Your task to perform on an android device: Search for the best value 4K TV on Best Buy Image 0: 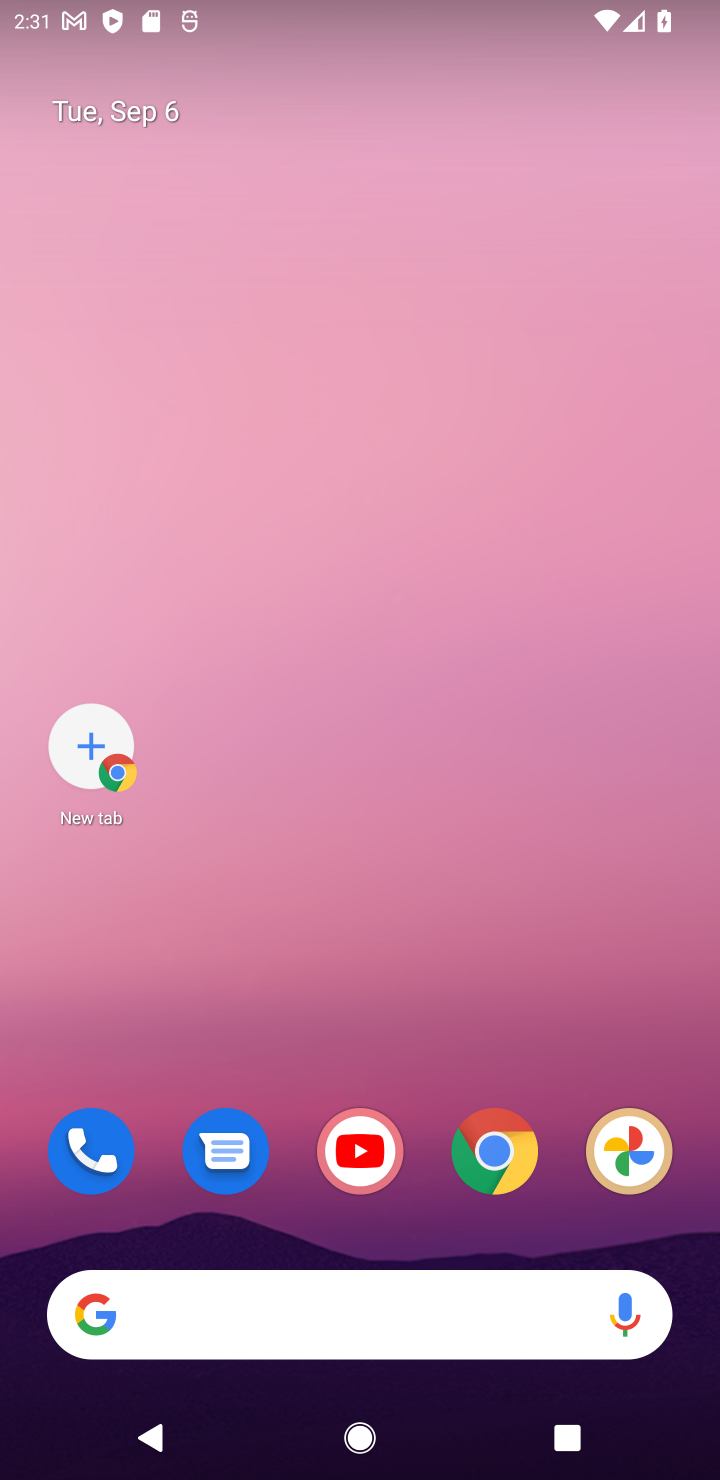
Step 0: click (512, 1159)
Your task to perform on an android device: Search for the best value 4K TV on Best Buy Image 1: 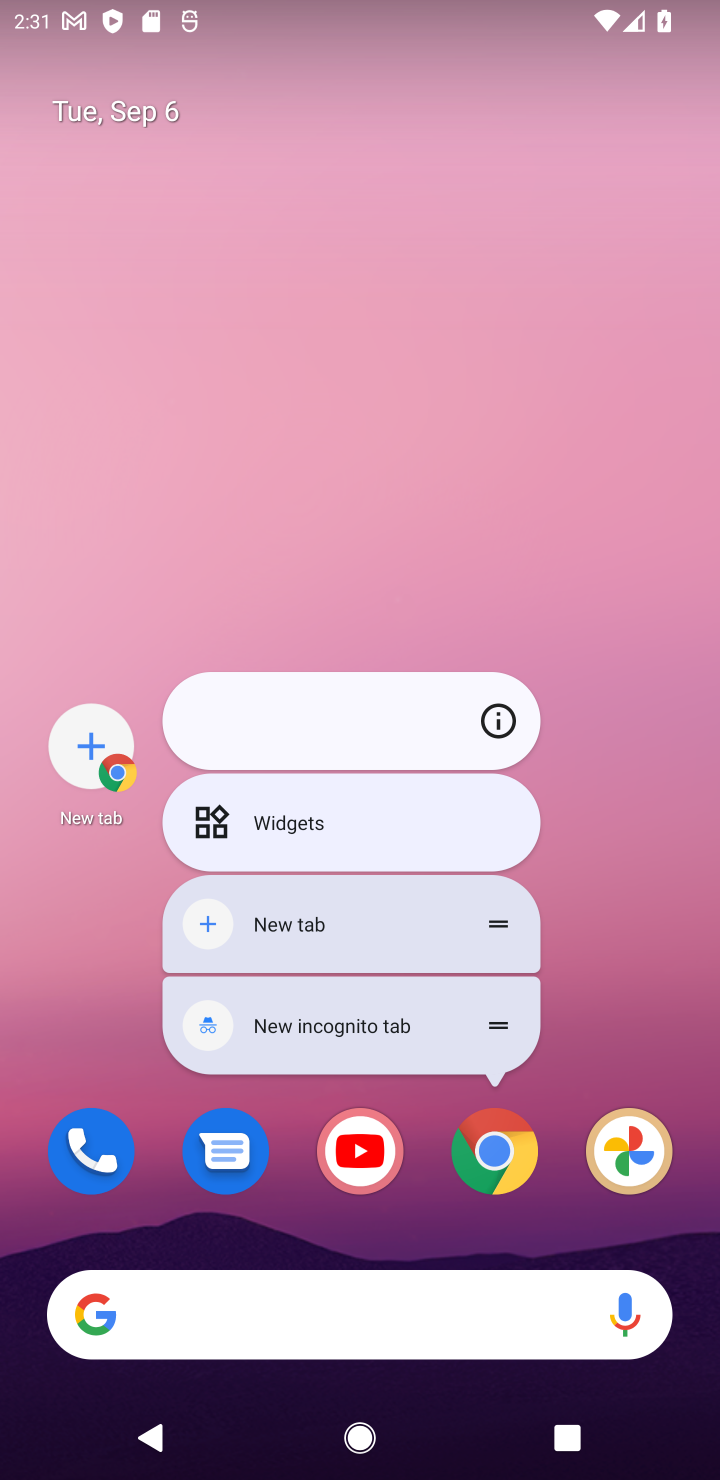
Step 1: click (510, 1153)
Your task to perform on an android device: Search for the best value 4K TV on Best Buy Image 2: 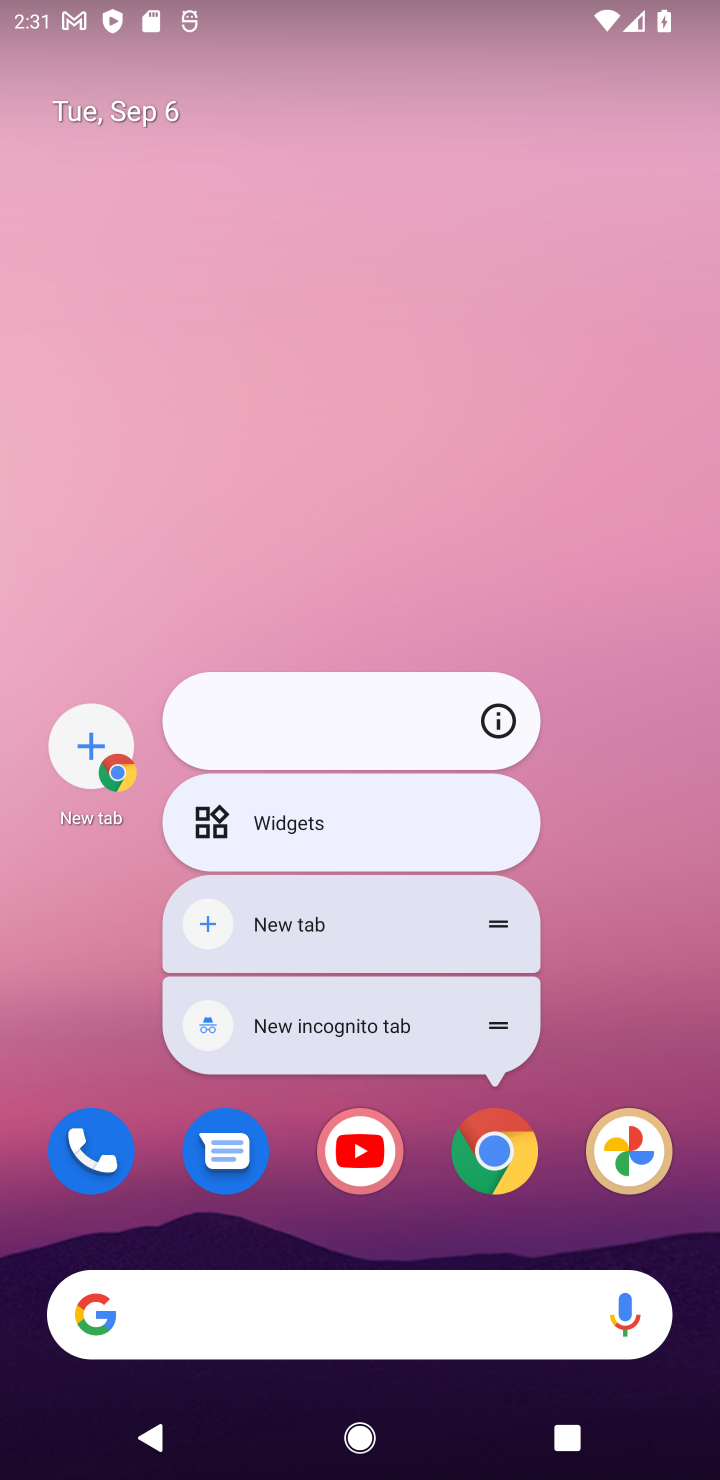
Step 2: click (483, 1166)
Your task to perform on an android device: Search for the best value 4K TV on Best Buy Image 3: 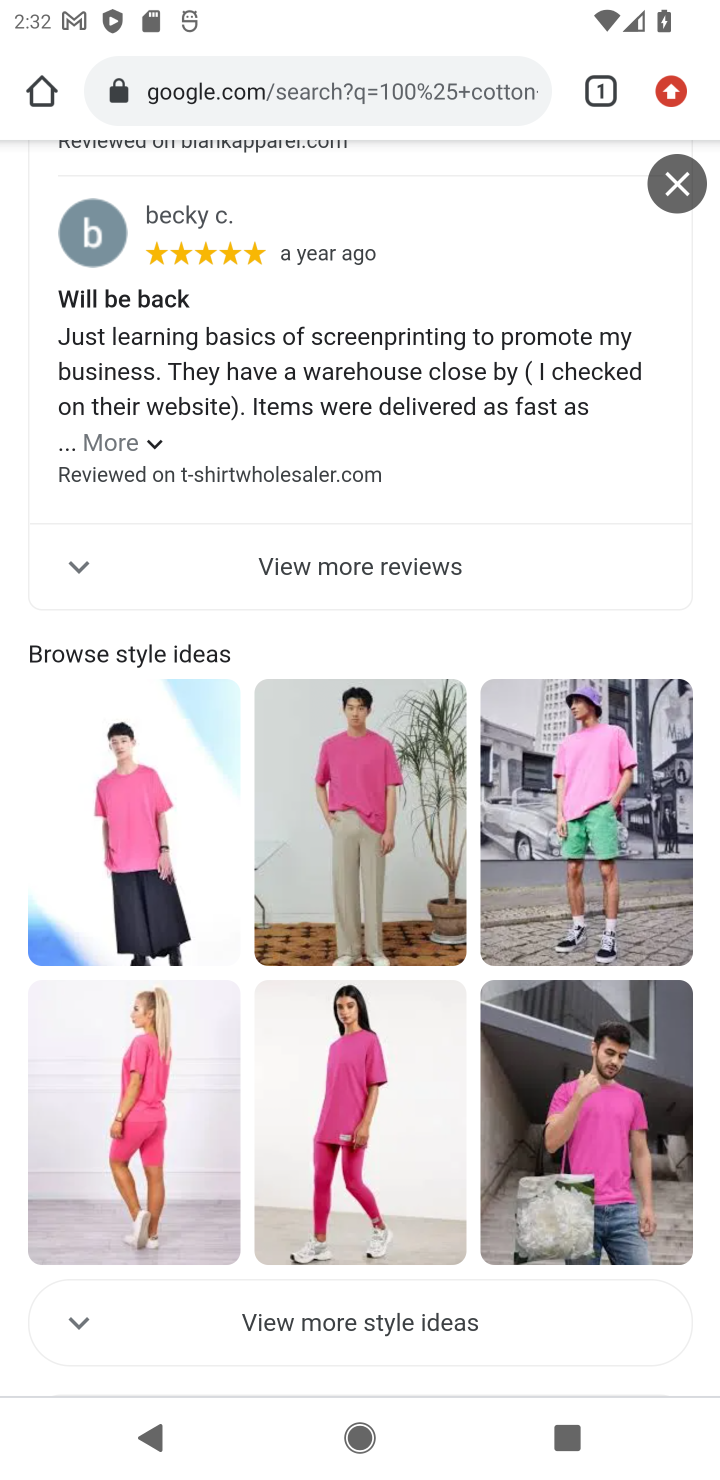
Step 3: click (262, 93)
Your task to perform on an android device: Search for the best value 4K TV on Best Buy Image 4: 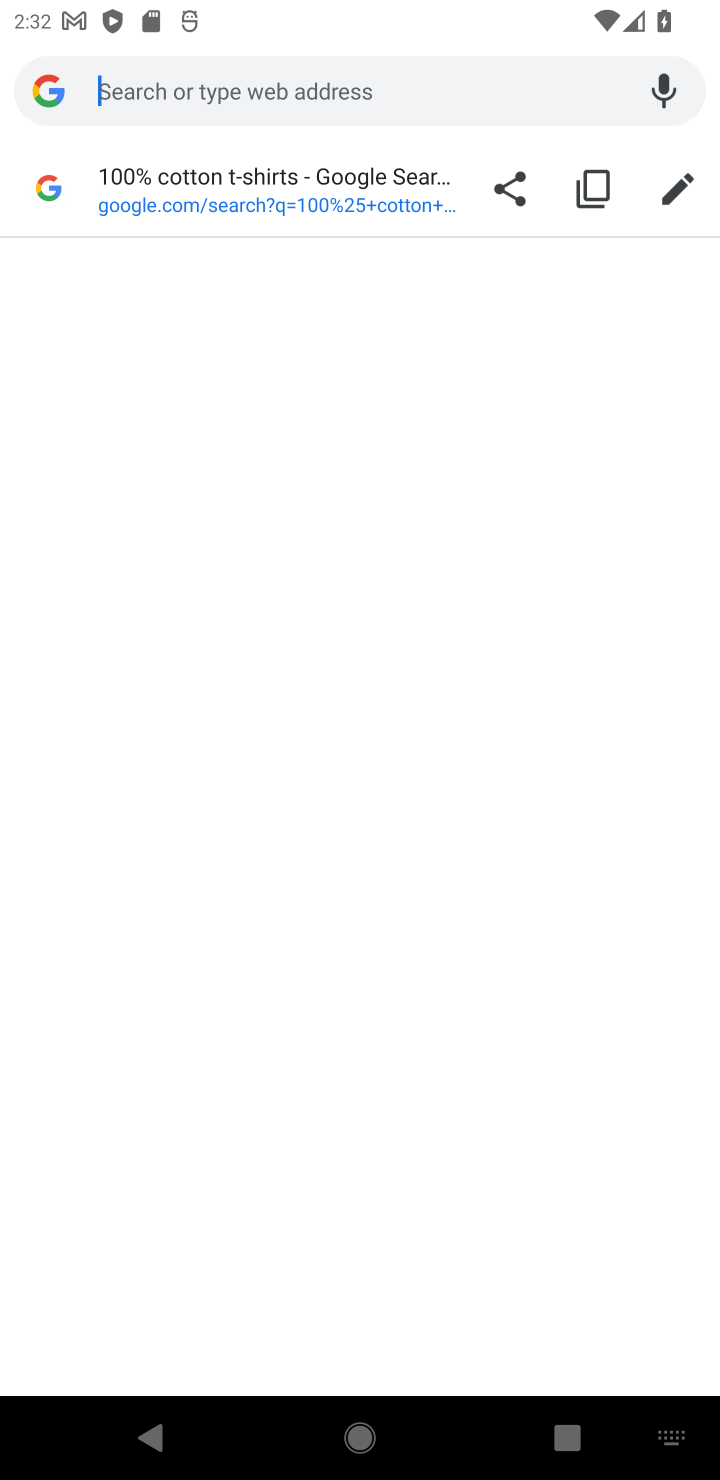
Step 4: type "best buy"
Your task to perform on an android device: Search for the best value 4K TV on Best Buy Image 5: 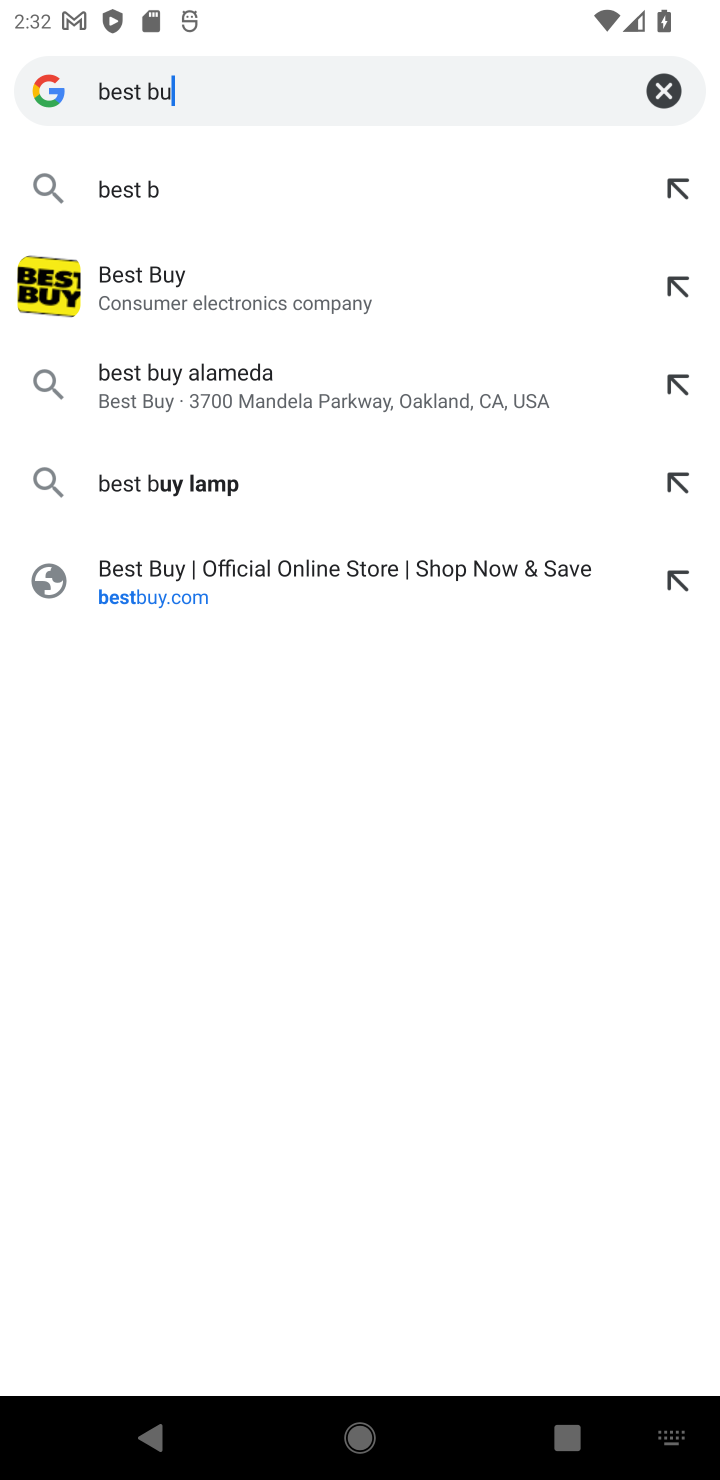
Step 5: type ""
Your task to perform on an android device: Search for the best value 4K TV on Best Buy Image 6: 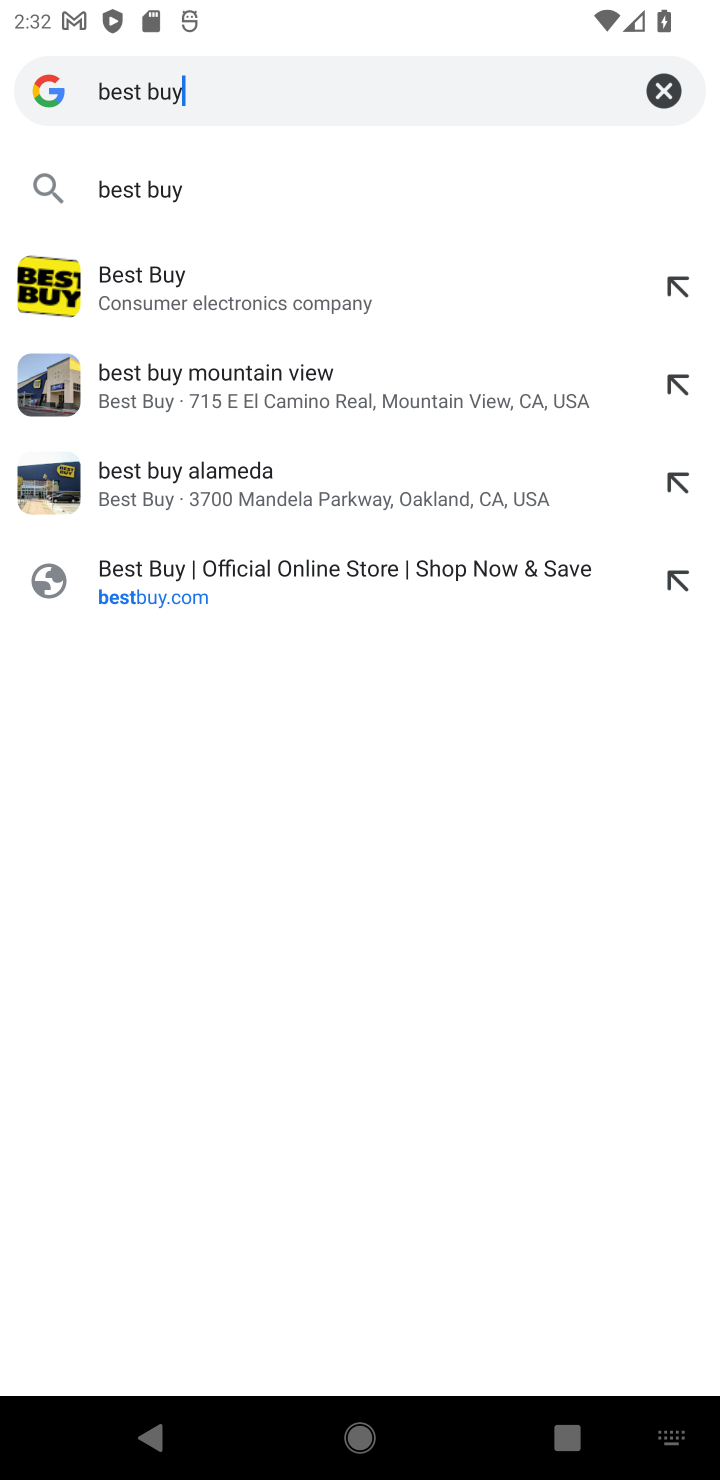
Step 6: click (144, 289)
Your task to perform on an android device: Search for the best value 4K TV on Best Buy Image 7: 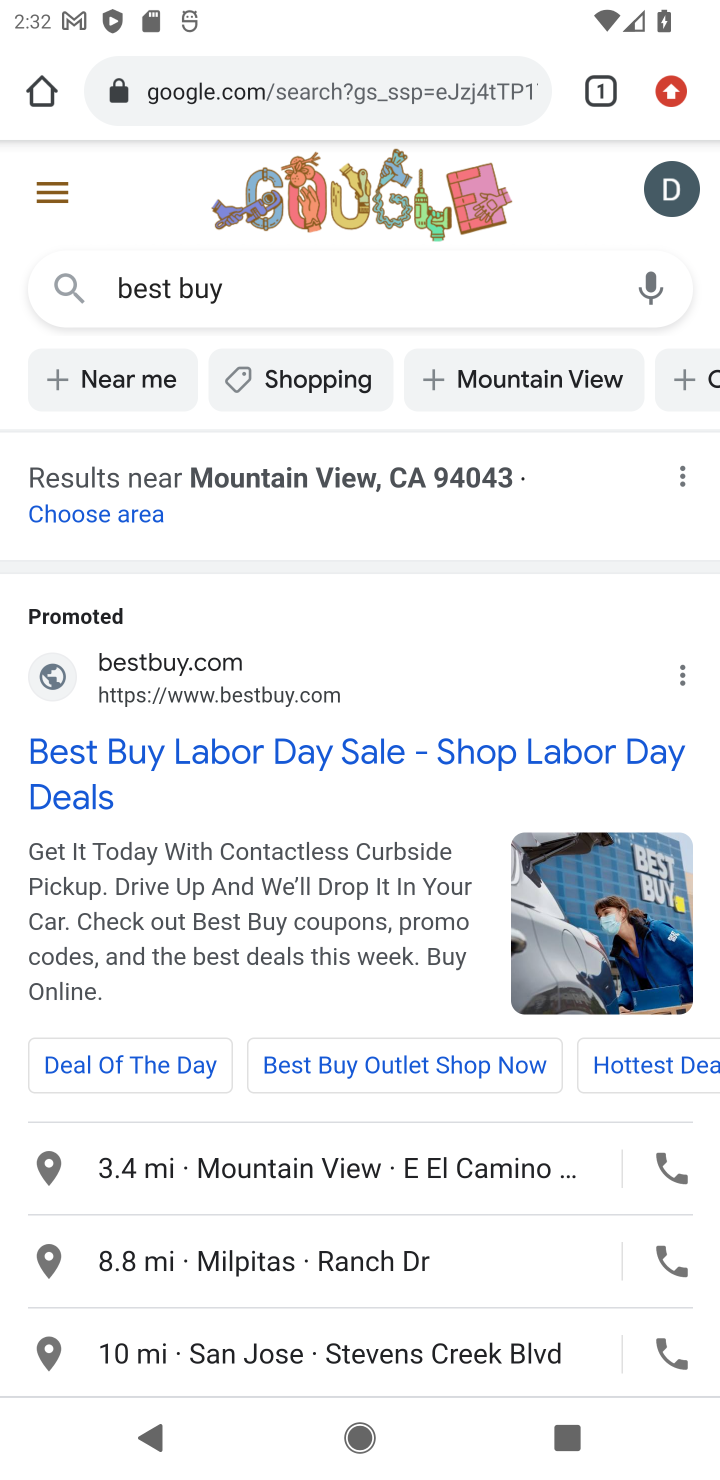
Step 7: drag from (370, 888) to (455, 337)
Your task to perform on an android device: Search for the best value 4K TV on Best Buy Image 8: 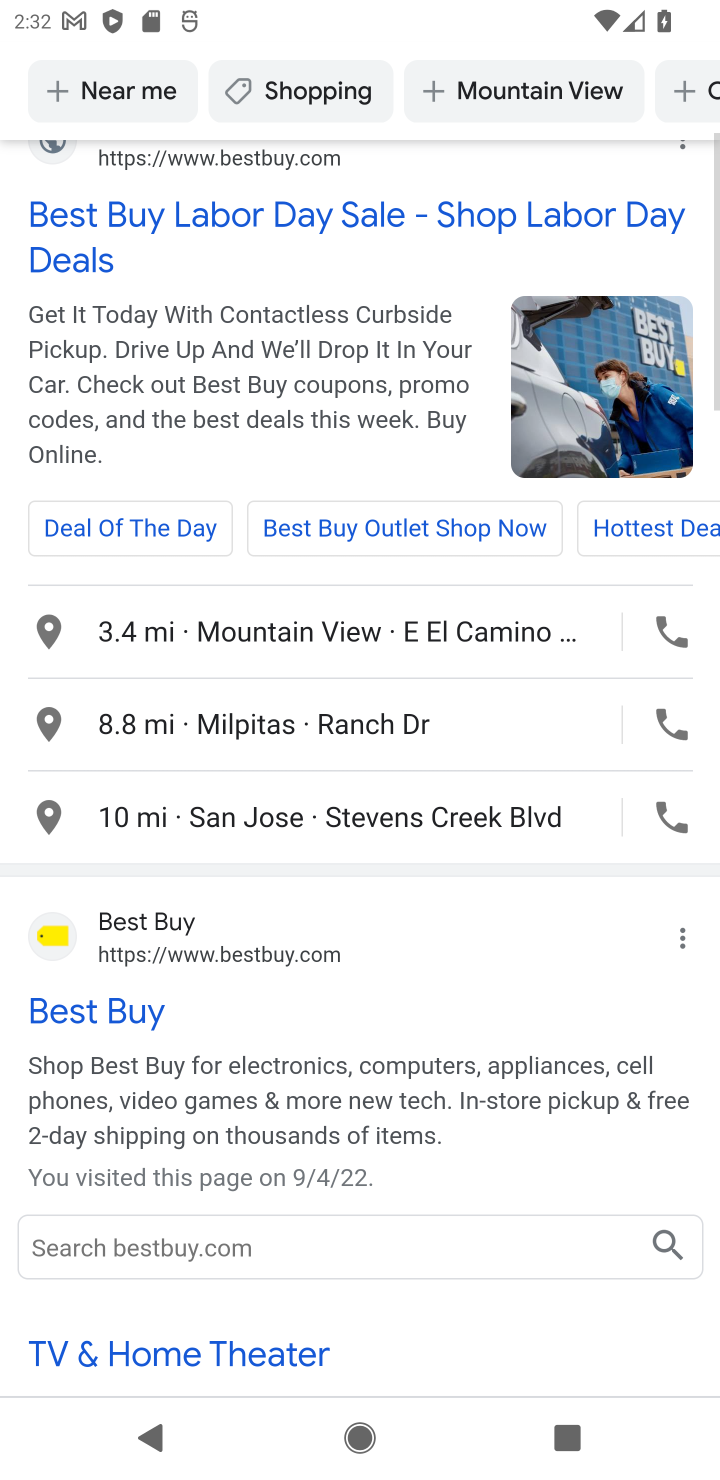
Step 8: click (112, 1152)
Your task to perform on an android device: Search for the best value 4K TV on Best Buy Image 9: 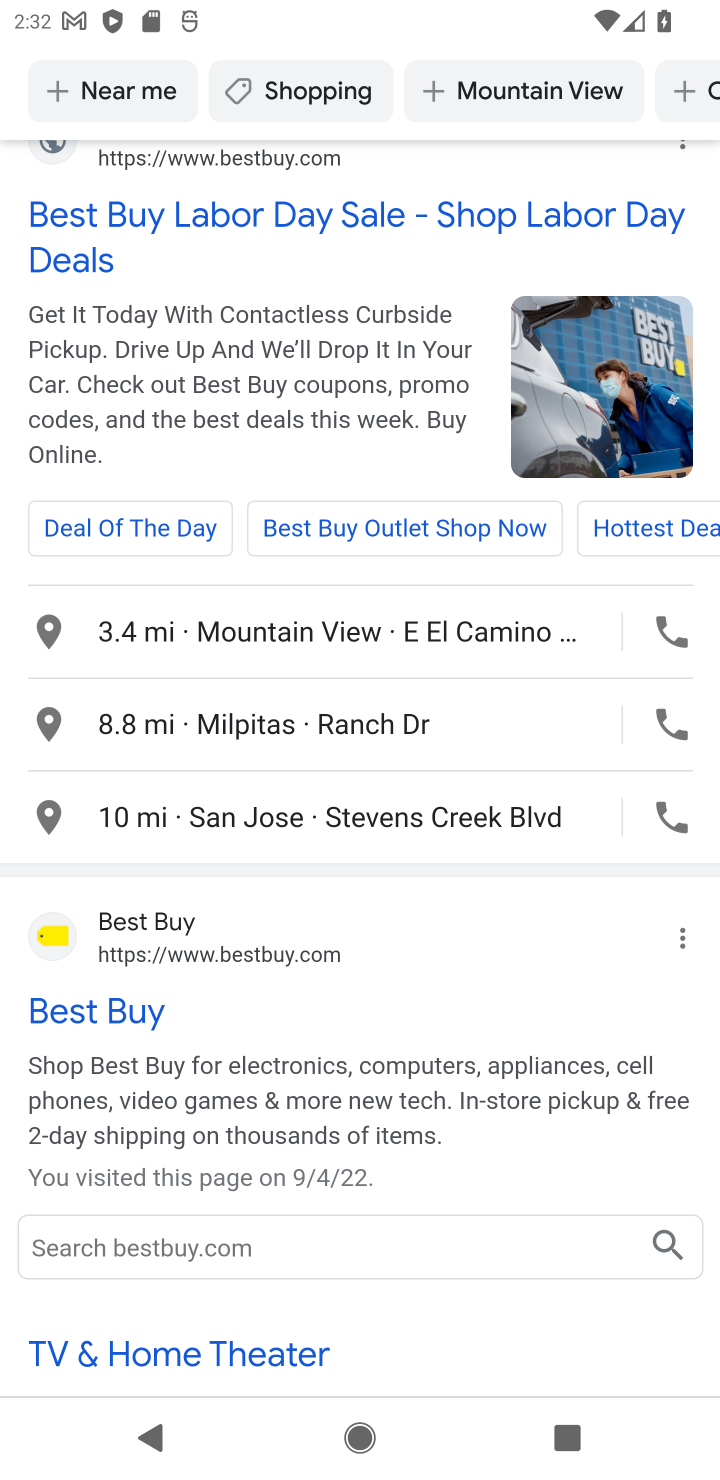
Step 9: click (78, 1005)
Your task to perform on an android device: Search for the best value 4K TV on Best Buy Image 10: 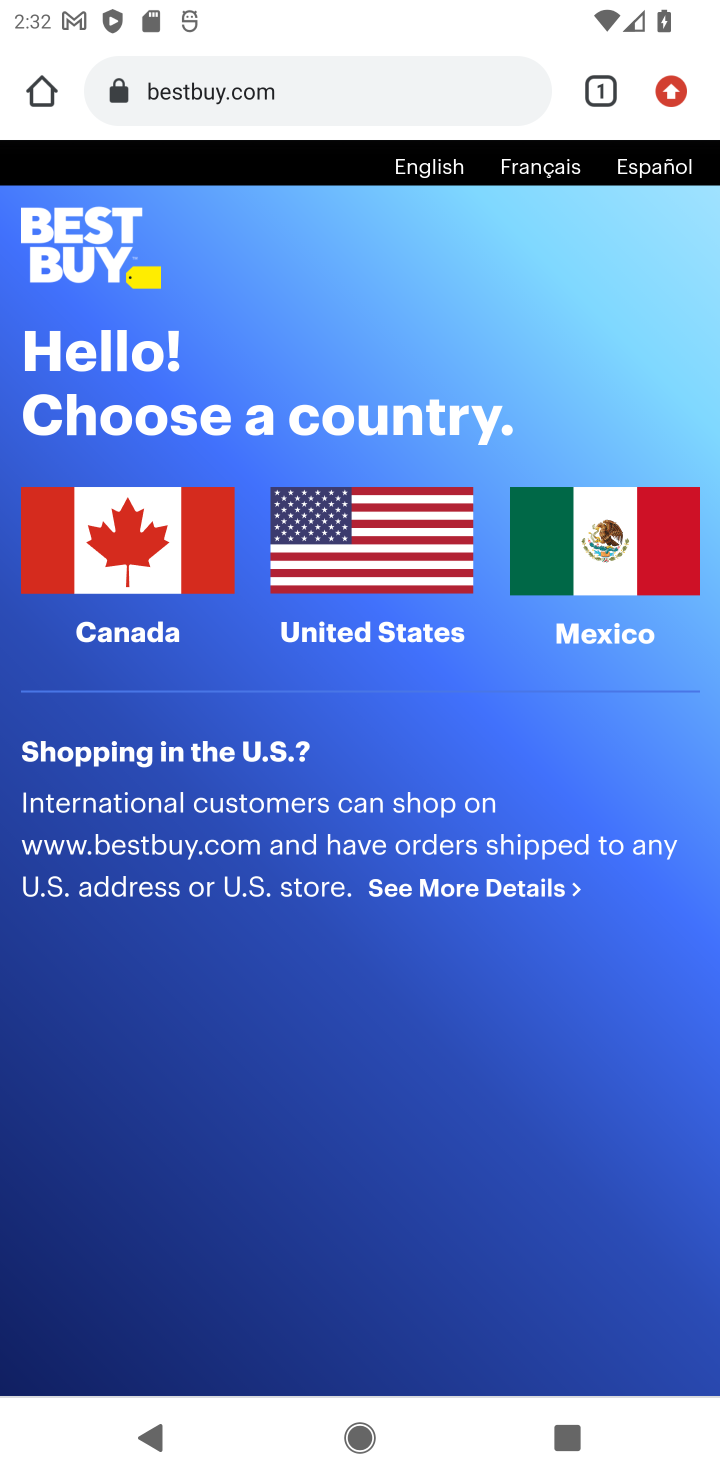
Step 10: click (329, 556)
Your task to perform on an android device: Search for the best value 4K TV on Best Buy Image 11: 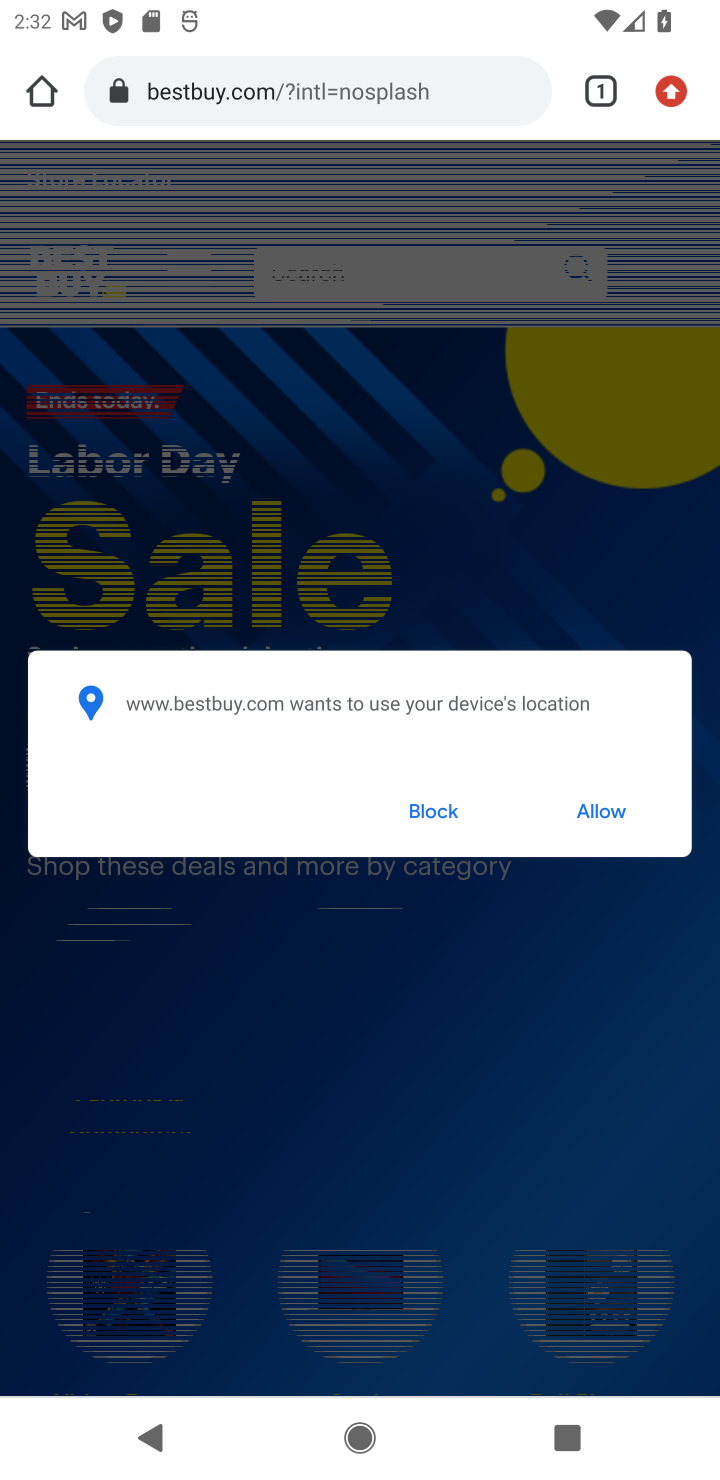
Step 11: click (327, 272)
Your task to perform on an android device: Search for the best value 4K TV on Best Buy Image 12: 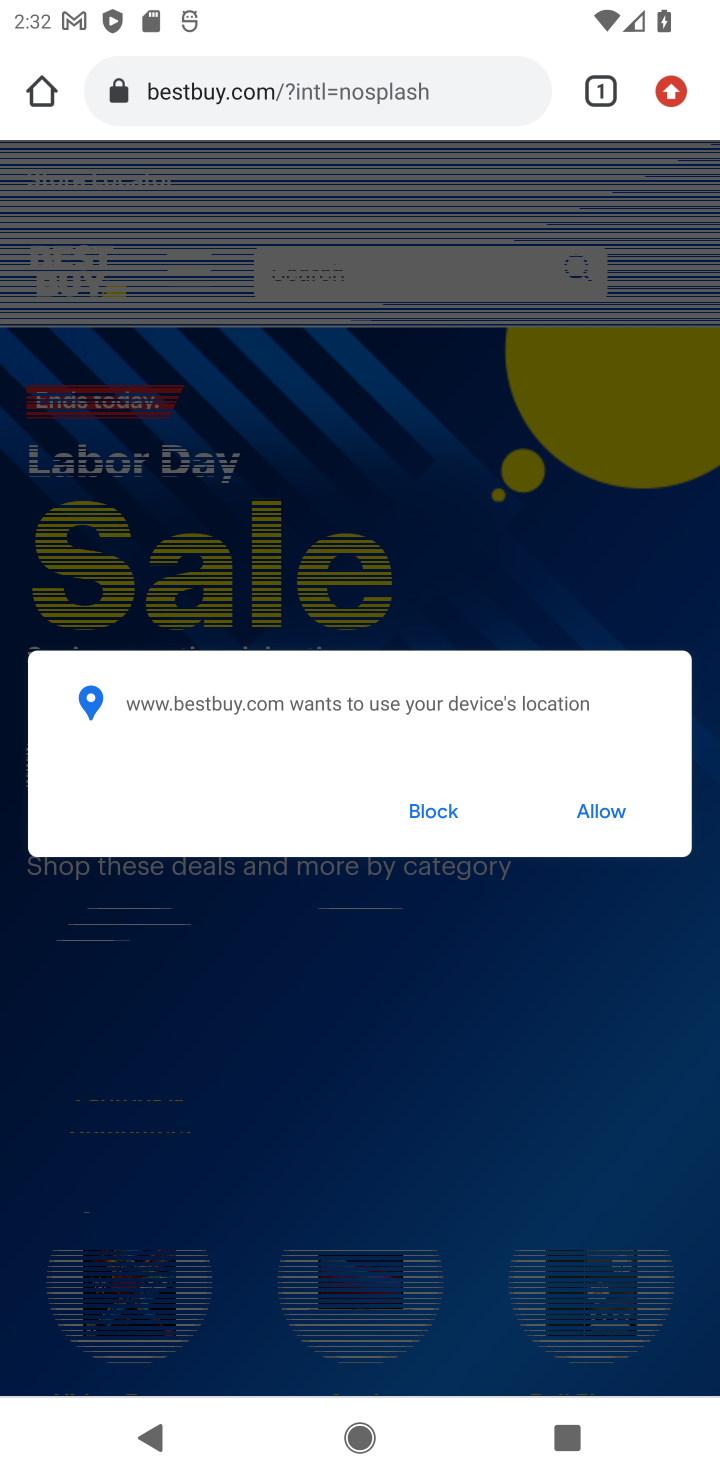
Step 12: click (600, 811)
Your task to perform on an android device: Search for the best value 4K TV on Best Buy Image 13: 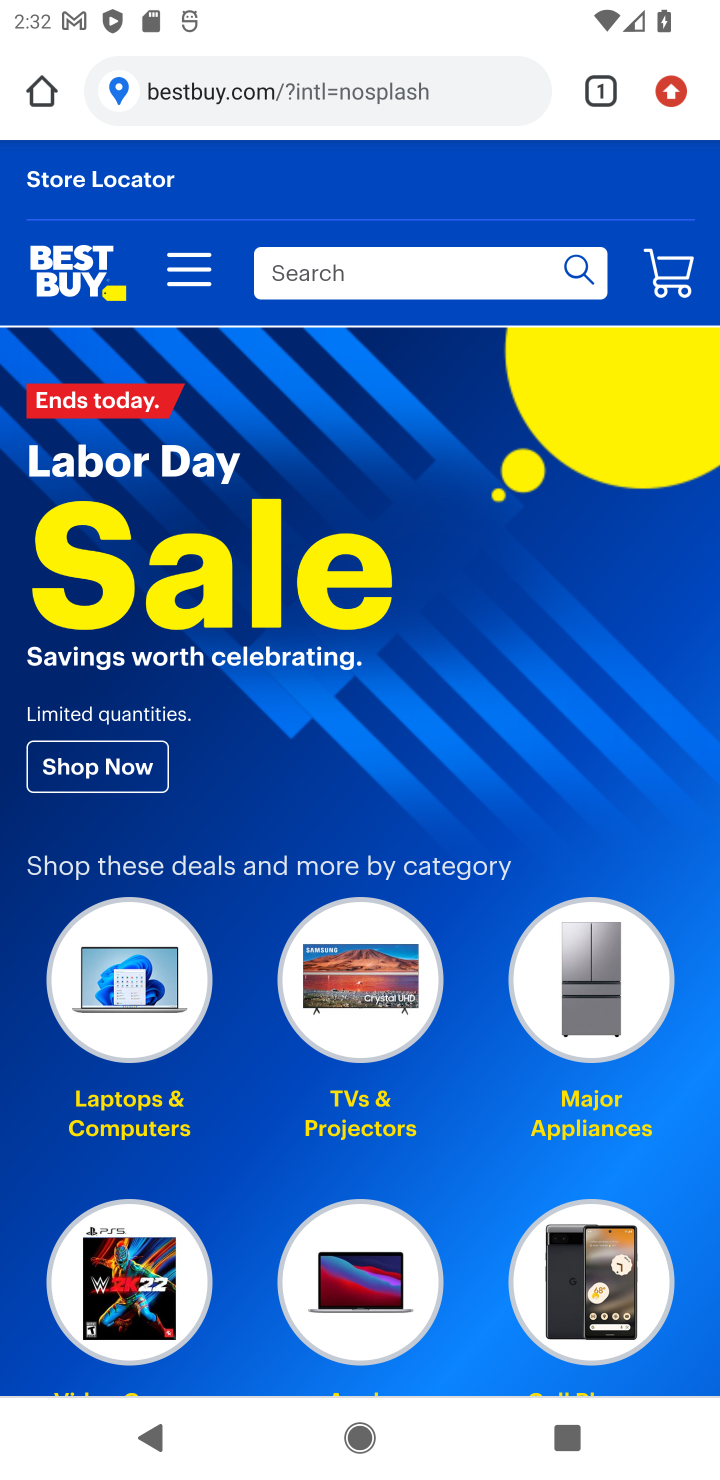
Step 13: click (385, 276)
Your task to perform on an android device: Search for the best value 4K TV on Best Buy Image 14: 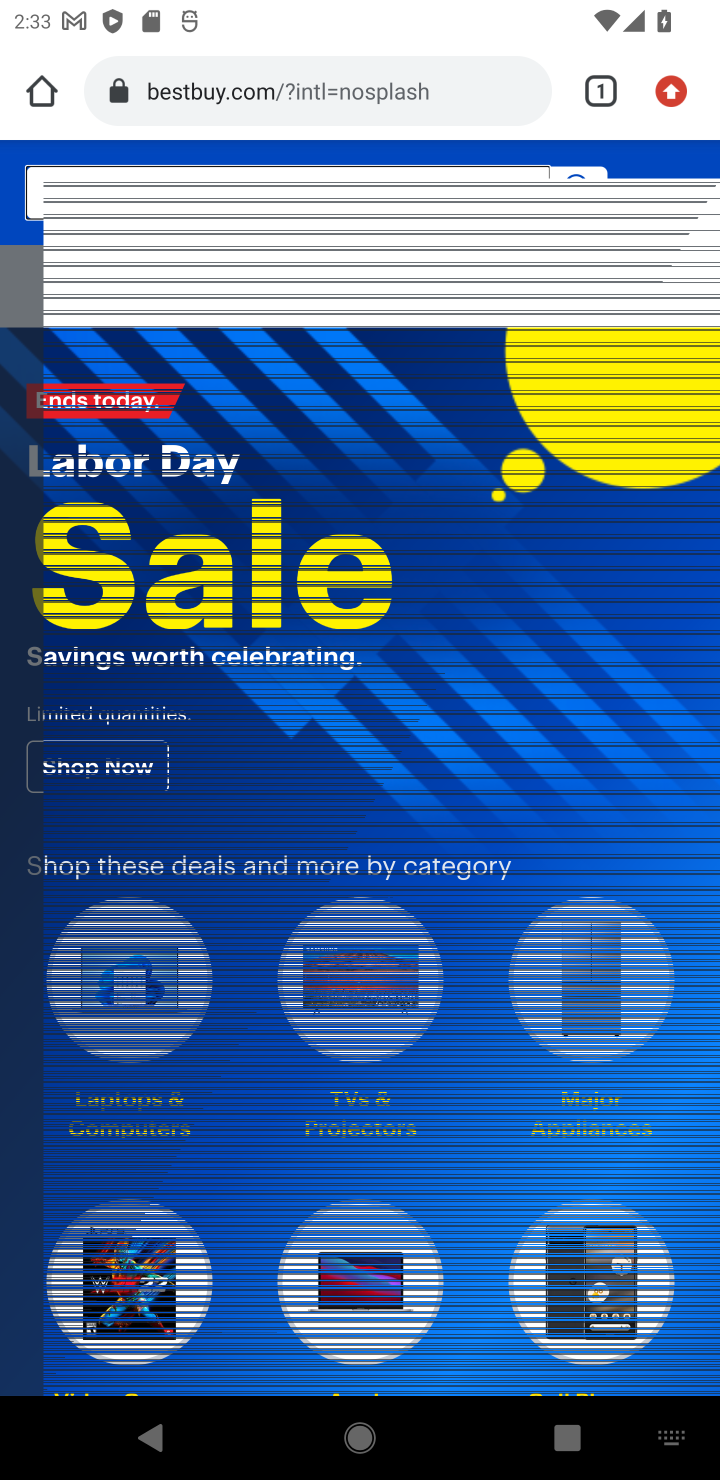
Step 14: type "4k tv"
Your task to perform on an android device: Search for the best value 4K TV on Best Buy Image 15: 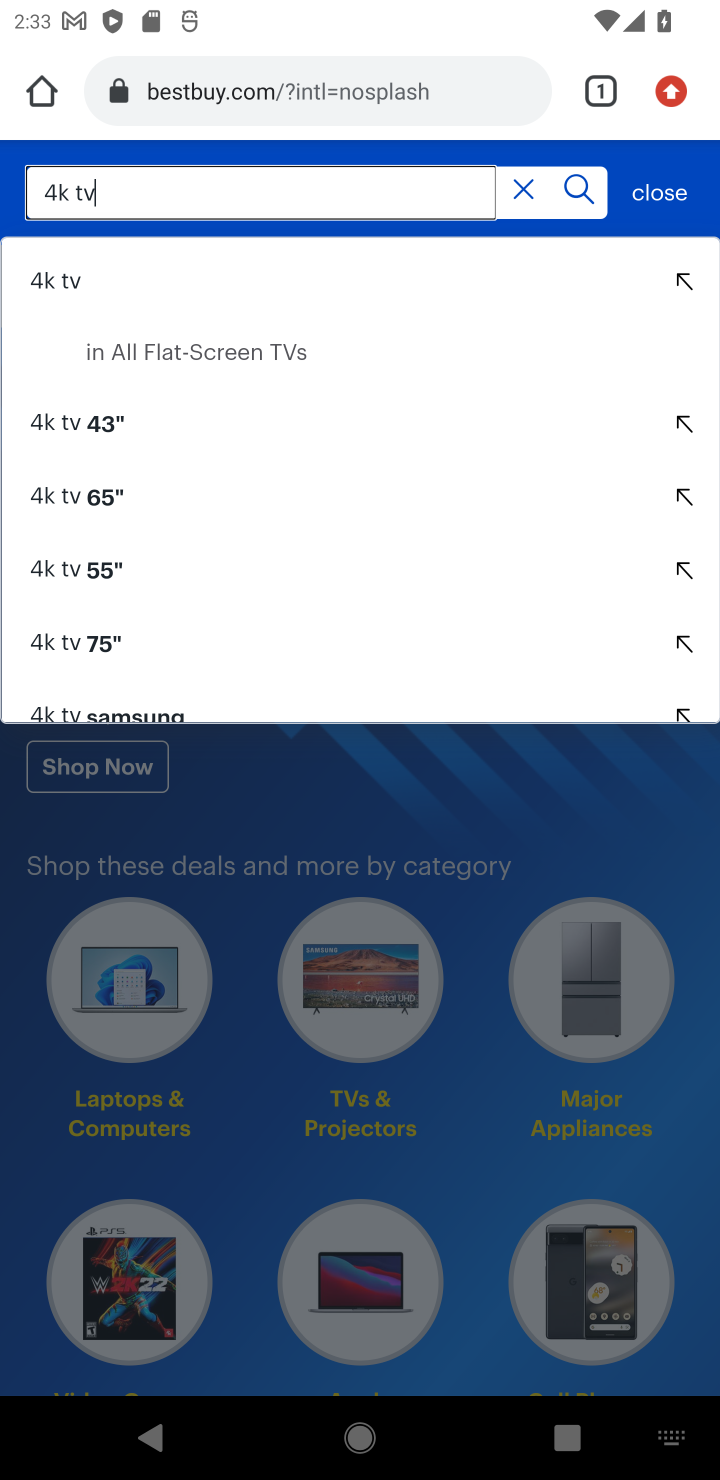
Step 15: click (62, 290)
Your task to perform on an android device: Search for the best value 4K TV on Best Buy Image 16: 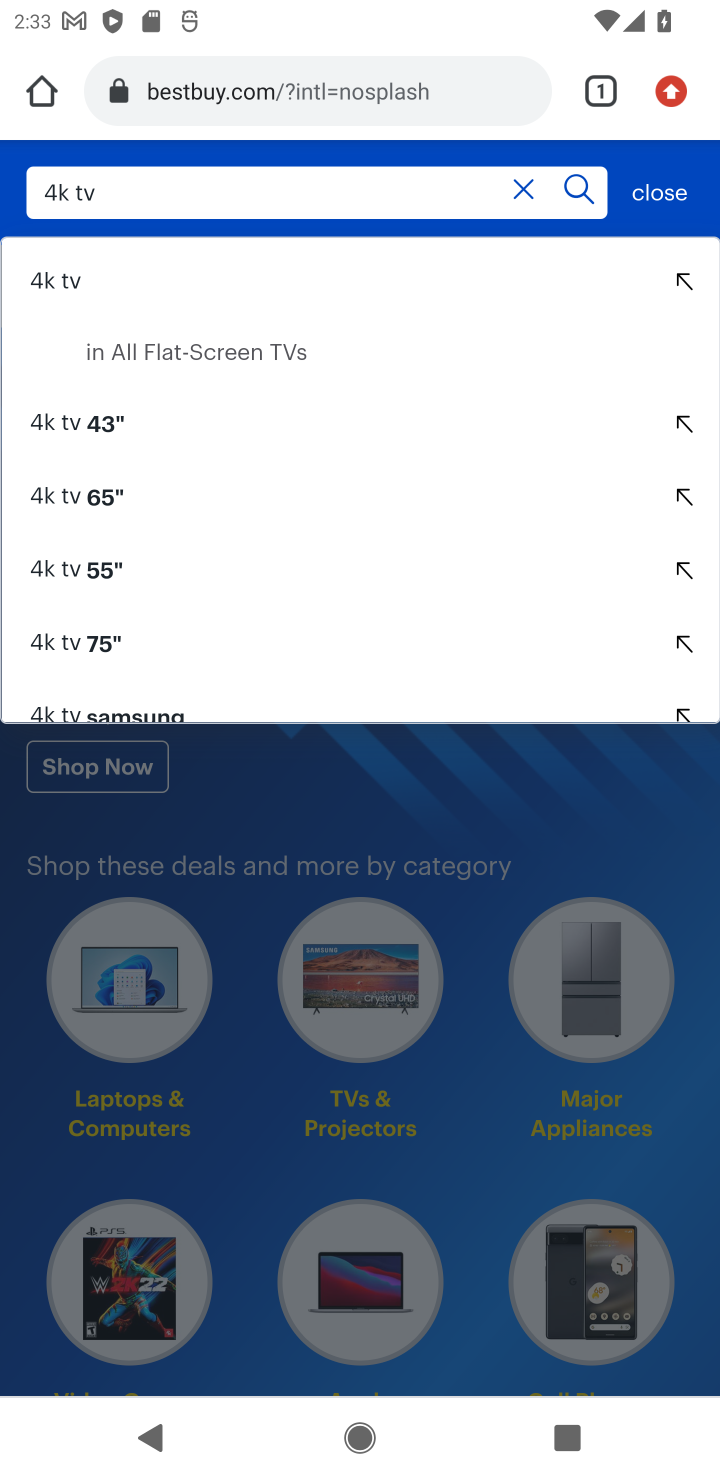
Step 16: click (60, 286)
Your task to perform on an android device: Search for the best value 4K TV on Best Buy Image 17: 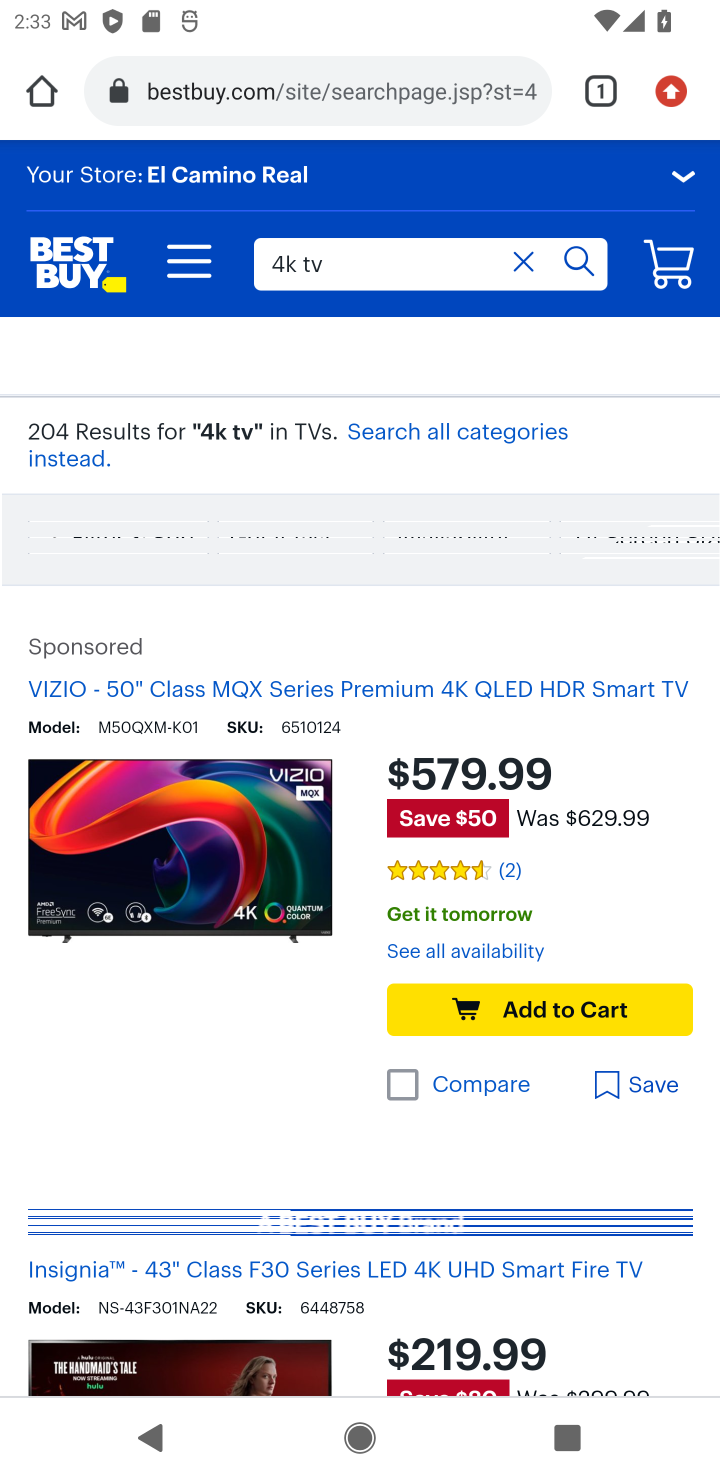
Step 17: drag from (188, 1005) to (282, 422)
Your task to perform on an android device: Search for the best value 4K TV on Best Buy Image 18: 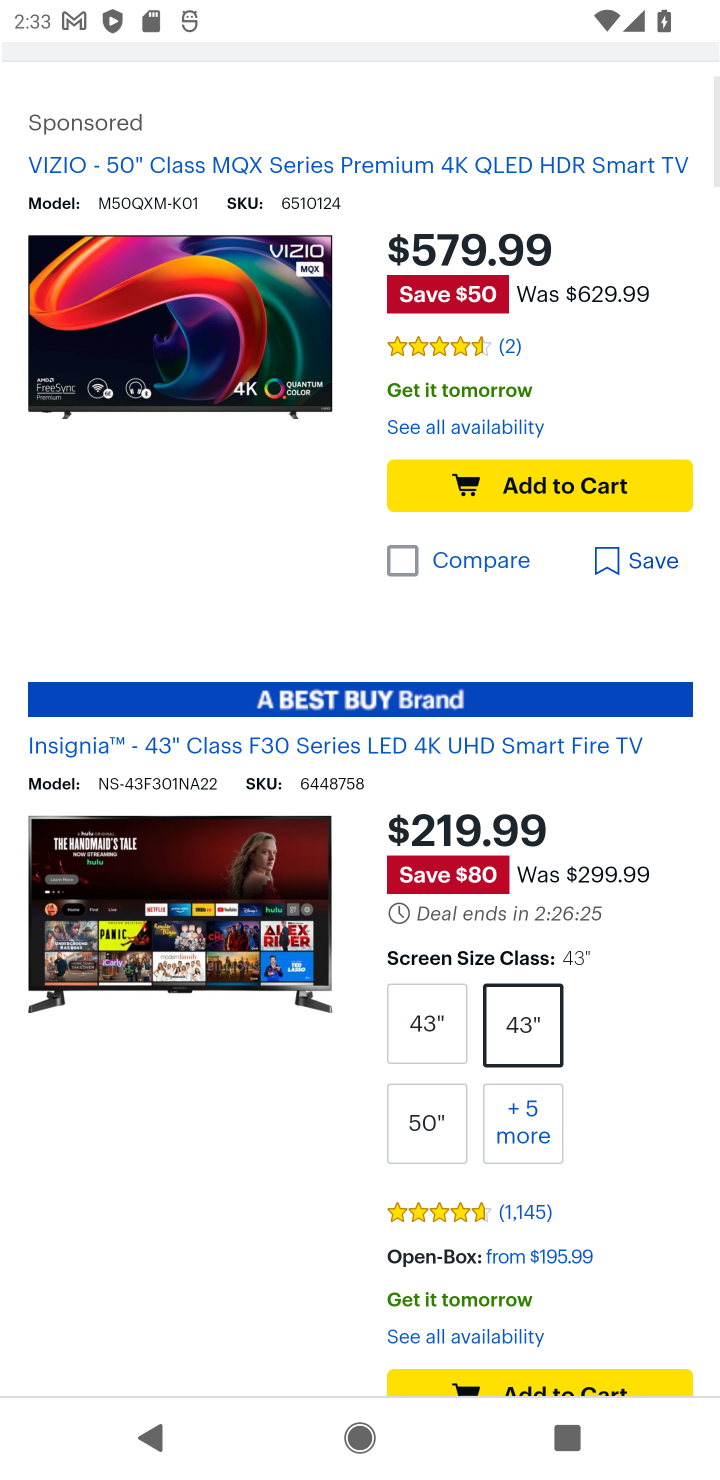
Step 18: drag from (433, 892) to (511, 304)
Your task to perform on an android device: Search for the best value 4K TV on Best Buy Image 19: 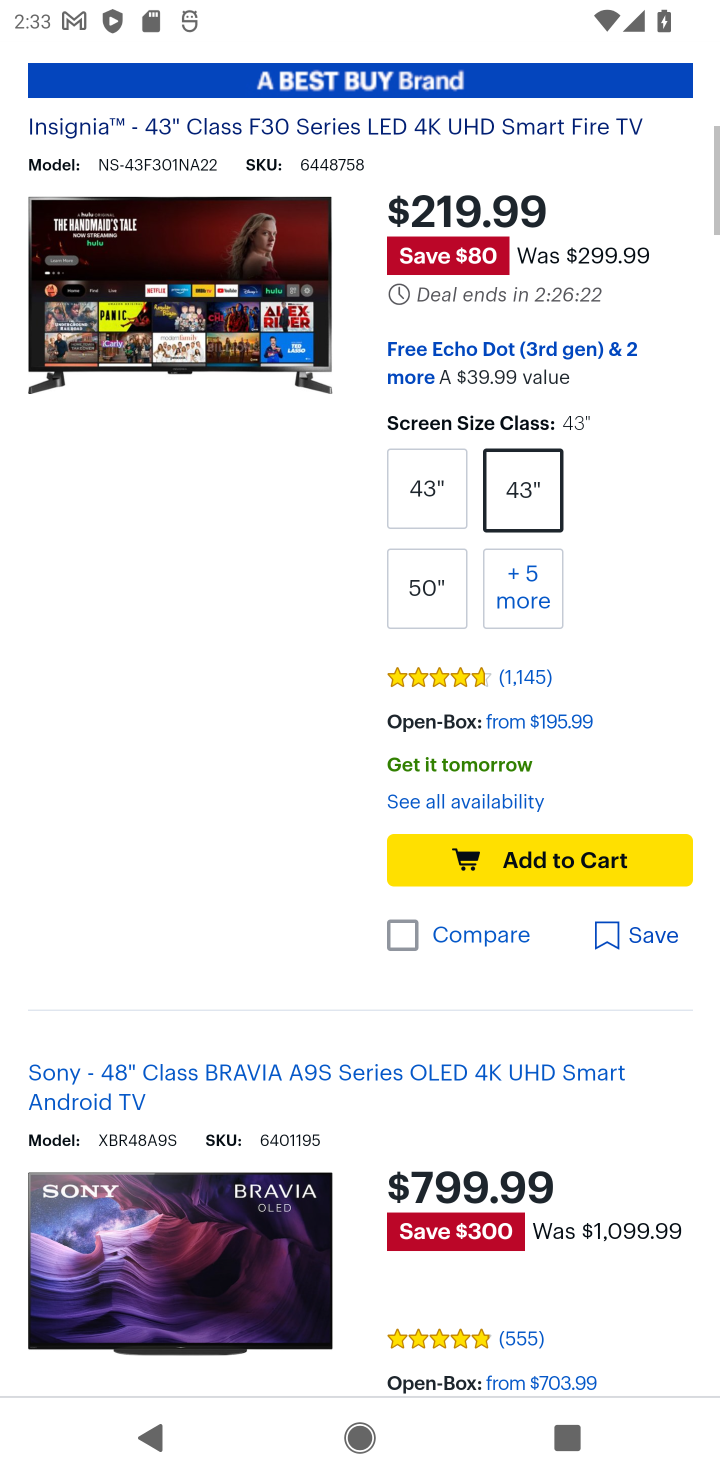
Step 19: drag from (400, 569) to (421, 415)
Your task to perform on an android device: Search for the best value 4K TV on Best Buy Image 20: 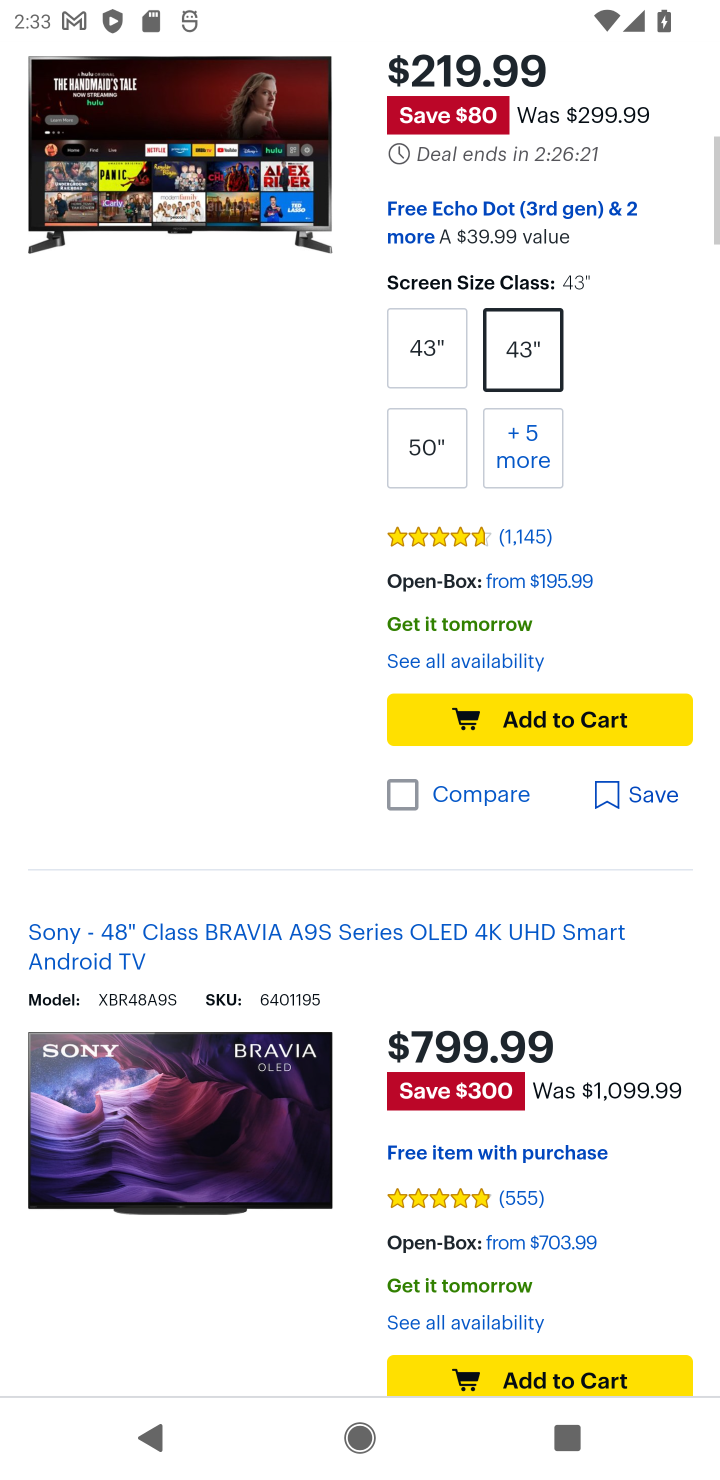
Step 20: drag from (204, 1174) to (352, 495)
Your task to perform on an android device: Search for the best value 4K TV on Best Buy Image 21: 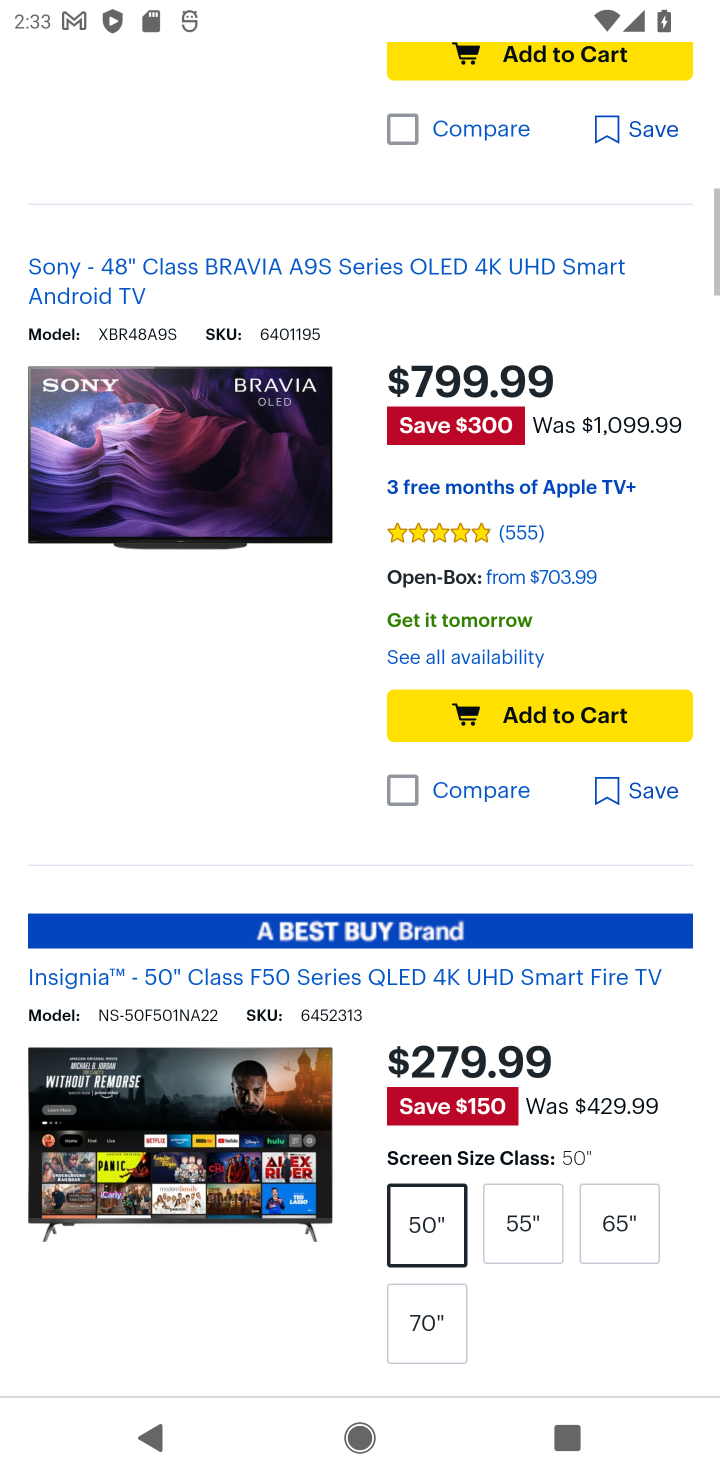
Step 21: click (324, 611)
Your task to perform on an android device: Search for the best value 4K TV on Best Buy Image 22: 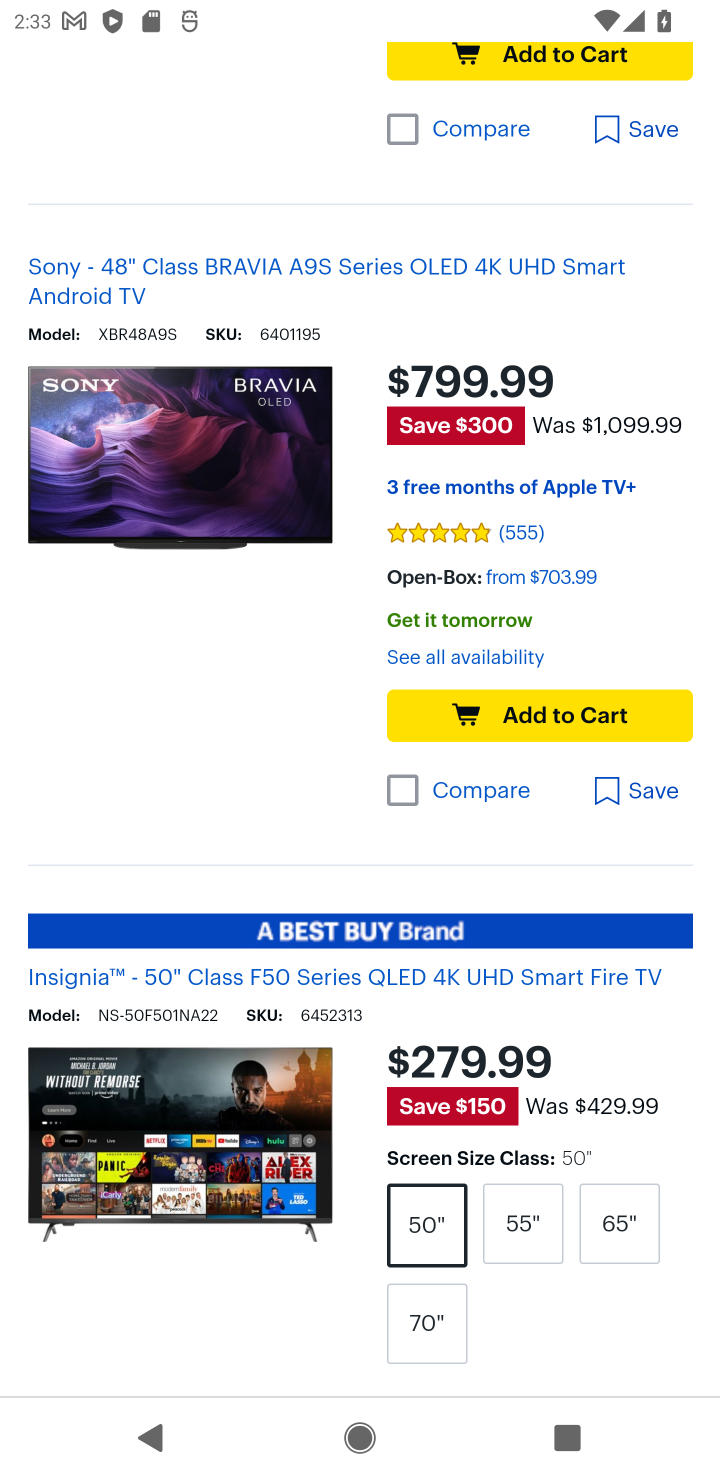
Step 22: drag from (210, 868) to (261, 627)
Your task to perform on an android device: Search for the best value 4K TV on Best Buy Image 23: 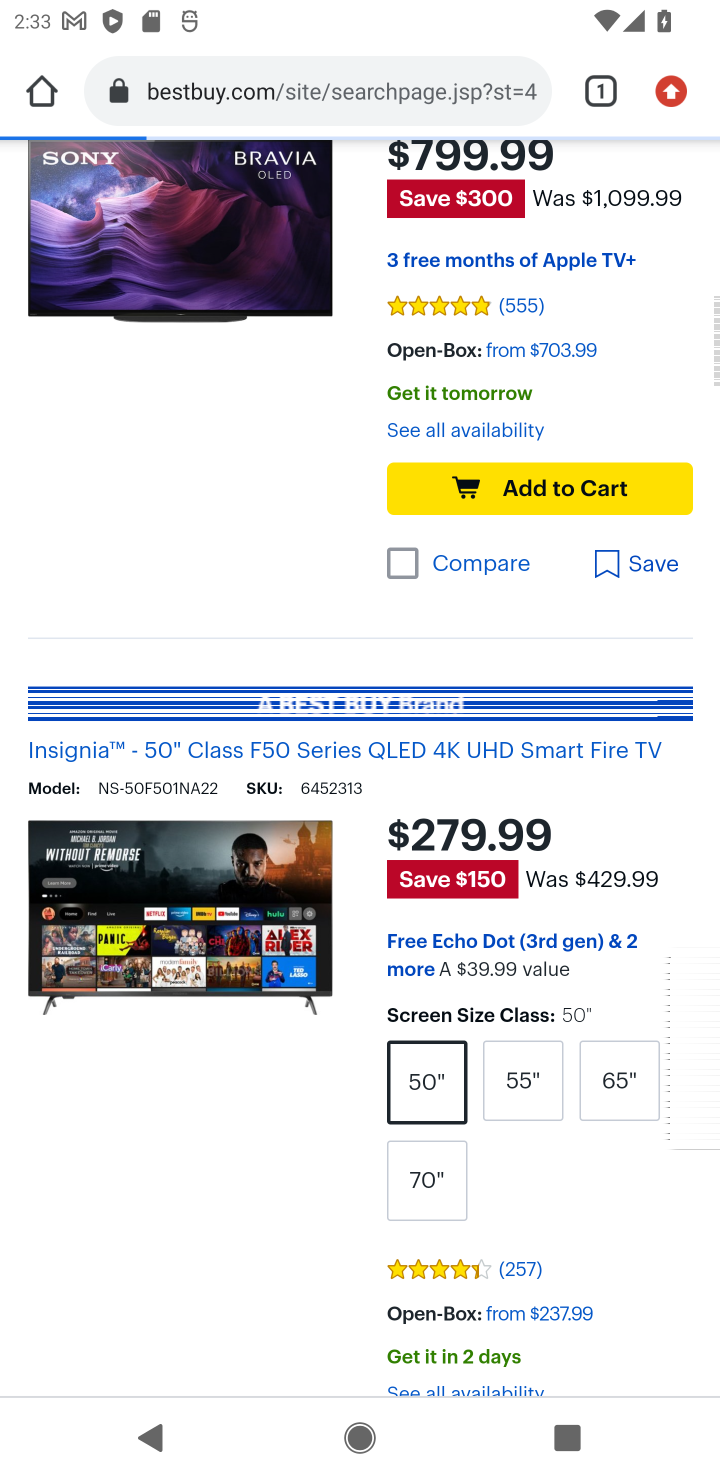
Step 23: click (141, 863)
Your task to perform on an android device: Search for the best value 4K TV on Best Buy Image 24: 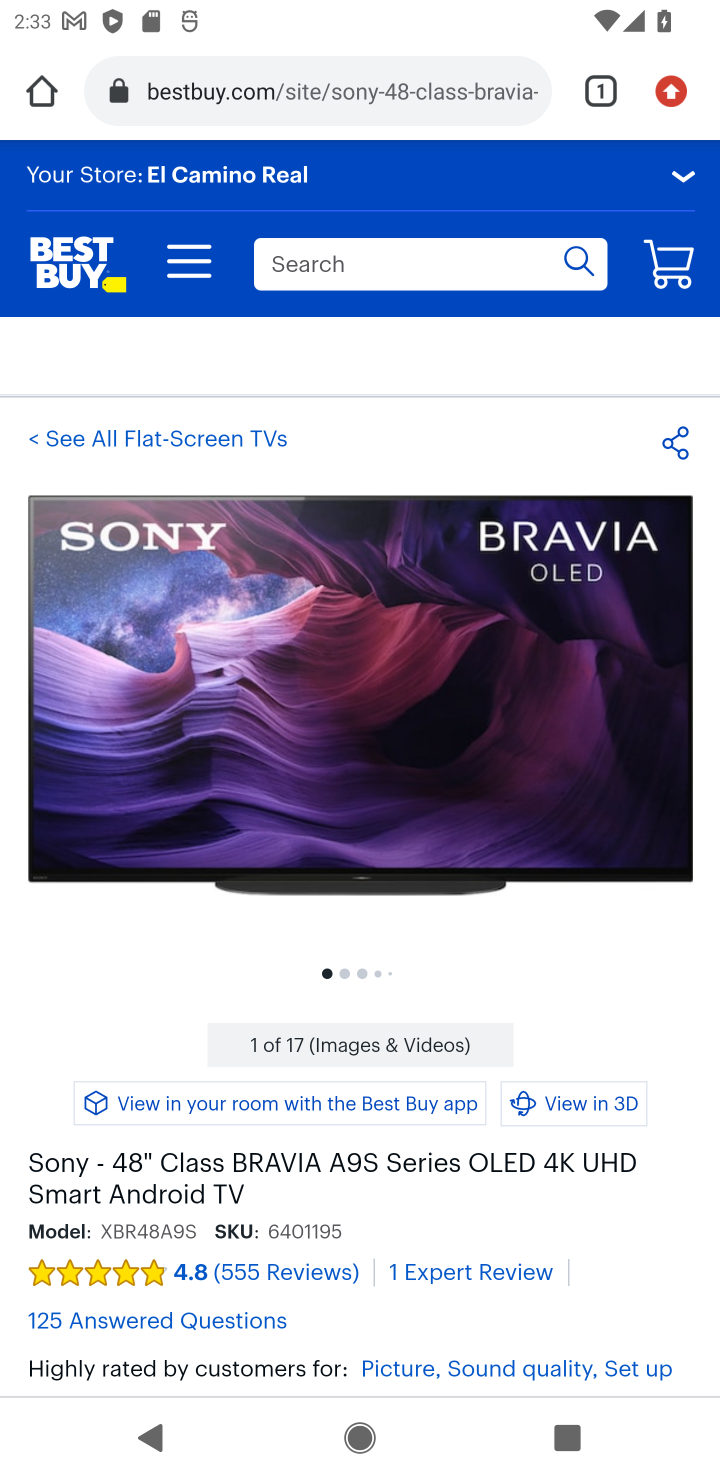
Step 24: click (653, 537)
Your task to perform on an android device: Search for the best value 4K TV on Best Buy Image 25: 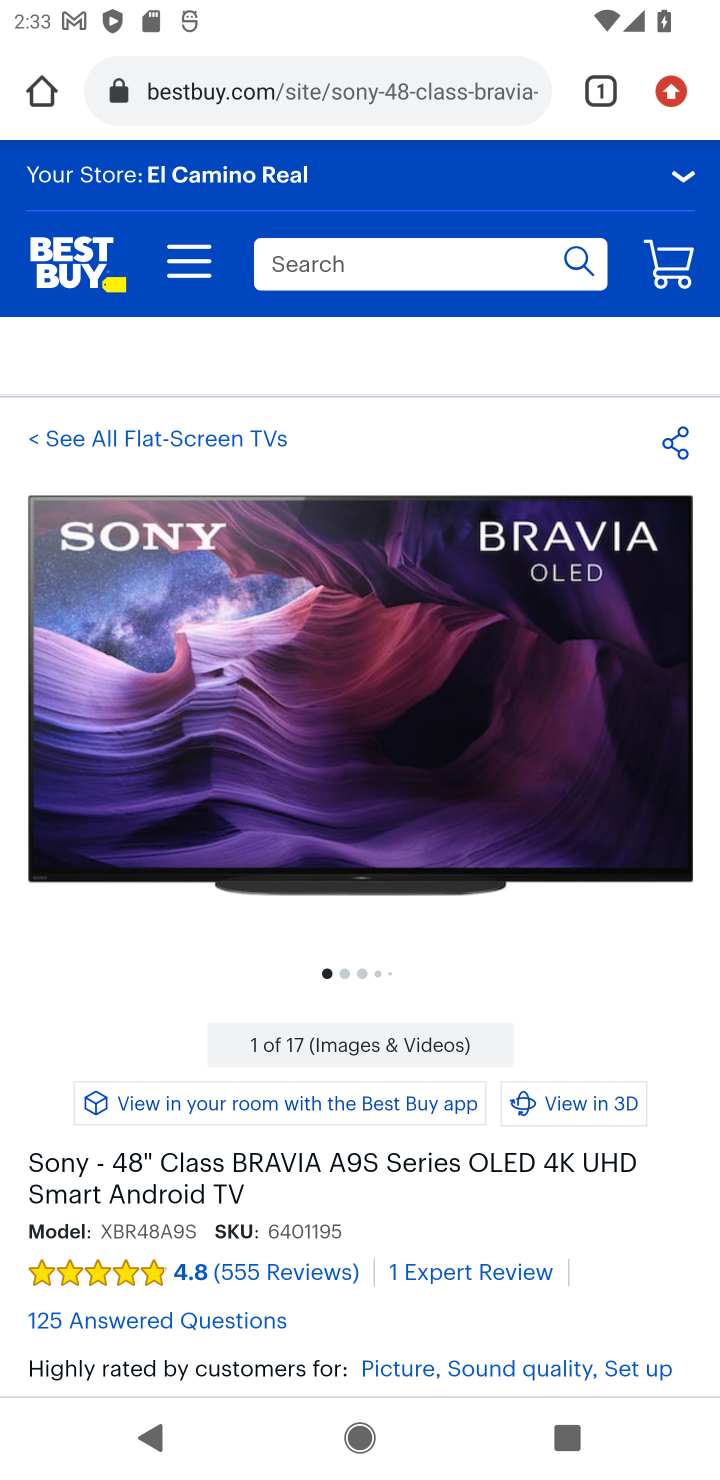
Step 25: drag from (462, 991) to (414, 637)
Your task to perform on an android device: Search for the best value 4K TV on Best Buy Image 26: 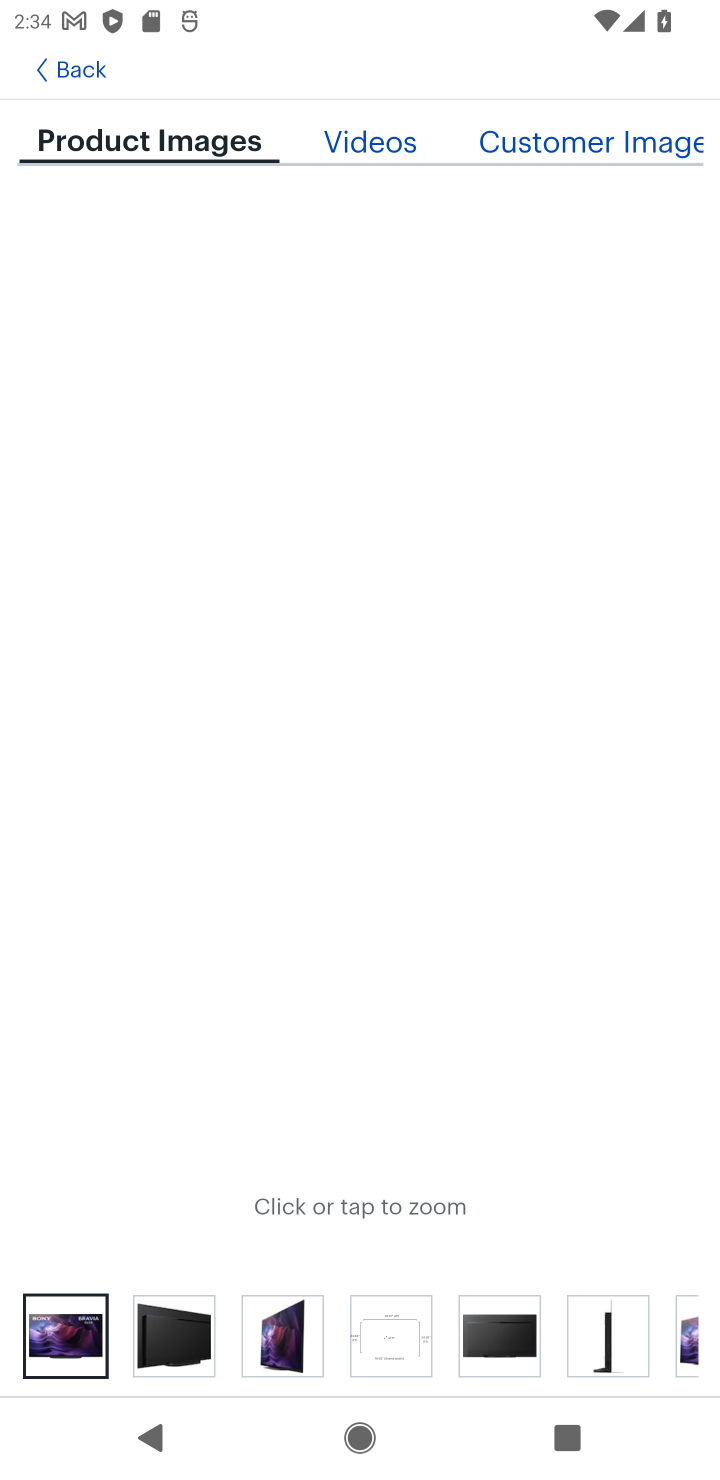
Step 26: click (142, 1343)
Your task to perform on an android device: Search for the best value 4K TV on Best Buy Image 27: 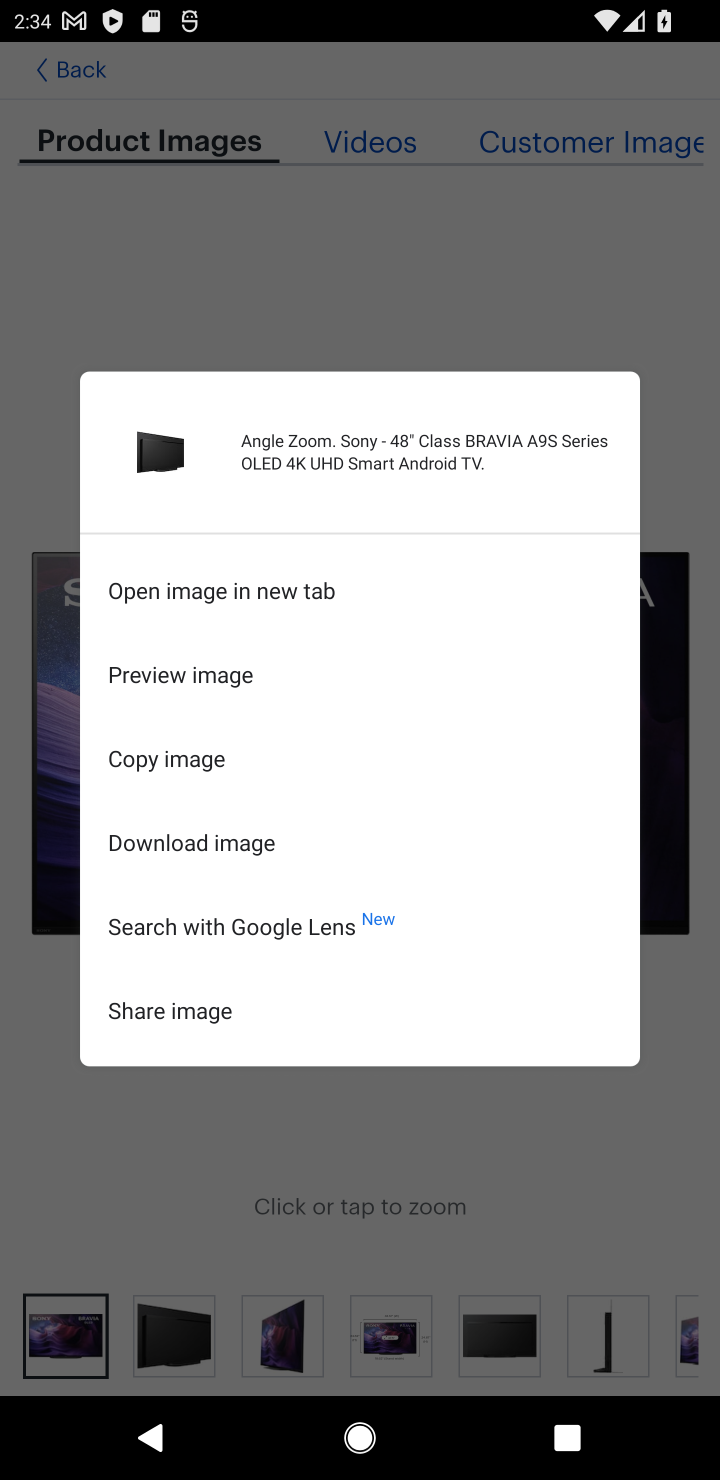
Step 27: click (685, 793)
Your task to perform on an android device: Search for the best value 4K TV on Best Buy Image 28: 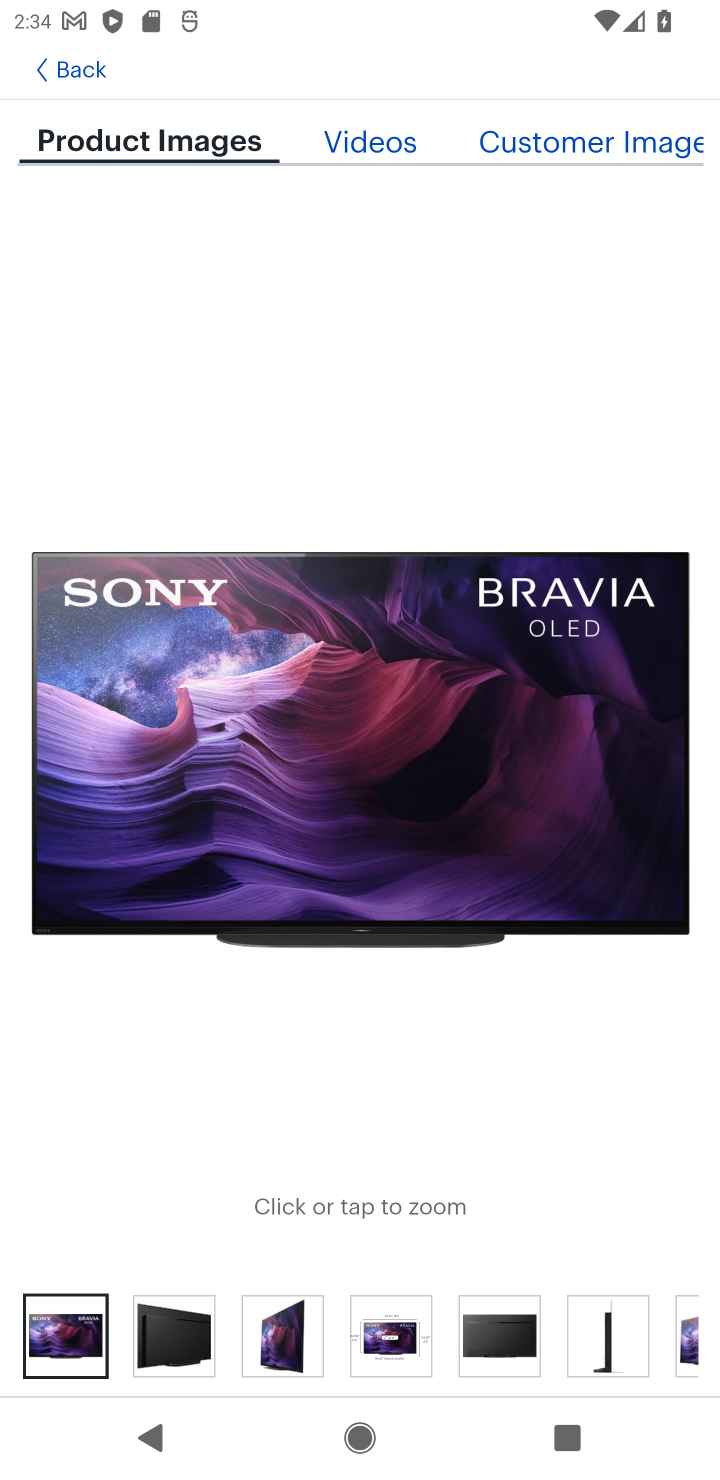
Step 28: task complete